Your task to perform on an android device: turn on data saver in the chrome app Image 0: 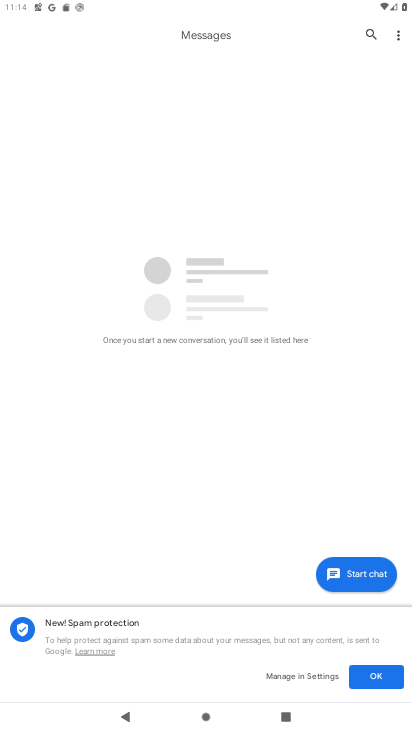
Step 0: press home button
Your task to perform on an android device: turn on data saver in the chrome app Image 1: 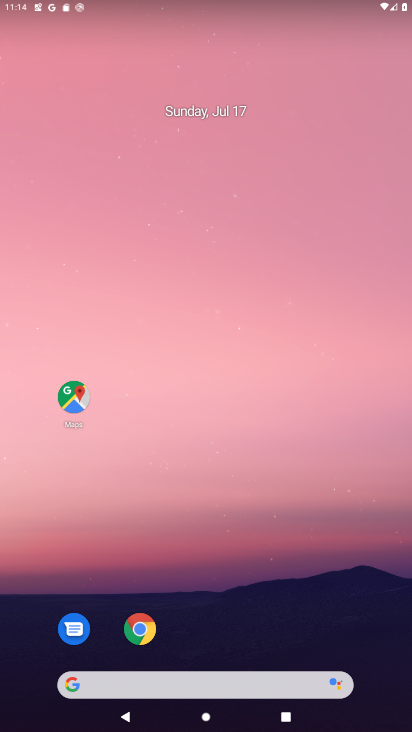
Step 1: click (138, 630)
Your task to perform on an android device: turn on data saver in the chrome app Image 2: 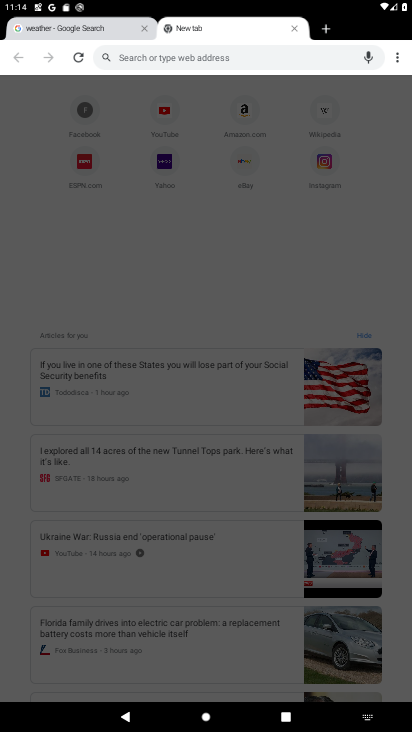
Step 2: click (397, 60)
Your task to perform on an android device: turn on data saver in the chrome app Image 3: 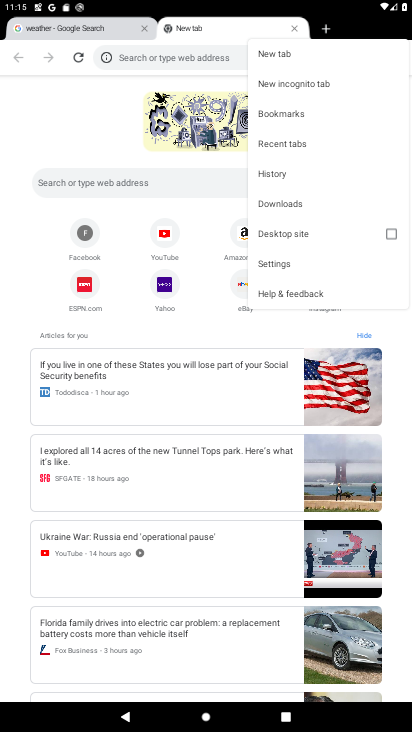
Step 3: click (281, 262)
Your task to perform on an android device: turn on data saver in the chrome app Image 4: 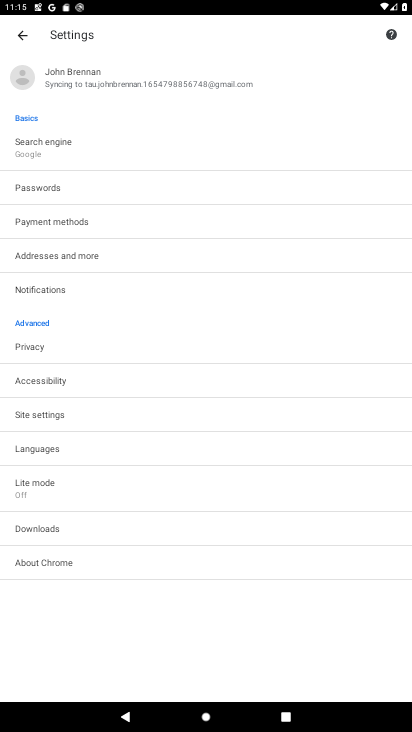
Step 4: click (58, 488)
Your task to perform on an android device: turn on data saver in the chrome app Image 5: 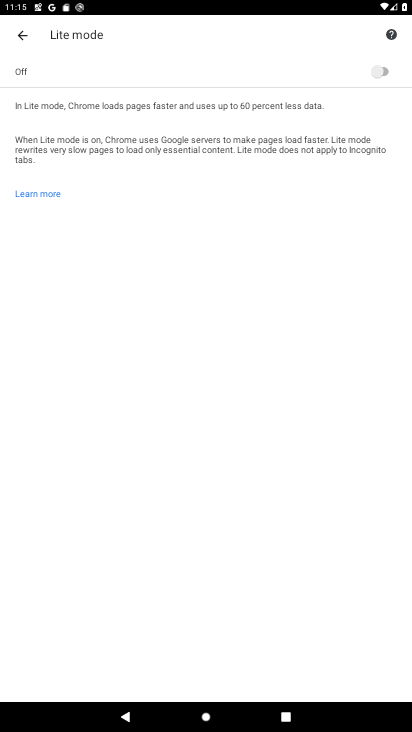
Step 5: click (376, 72)
Your task to perform on an android device: turn on data saver in the chrome app Image 6: 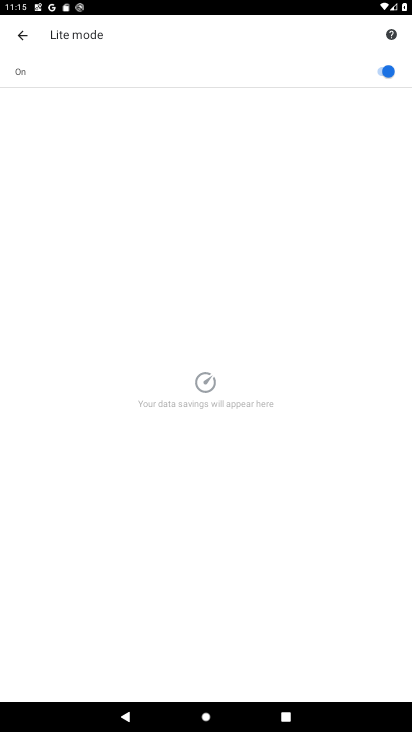
Step 6: task complete